Your task to perform on an android device: Is it going to rain tomorrow? Image 0: 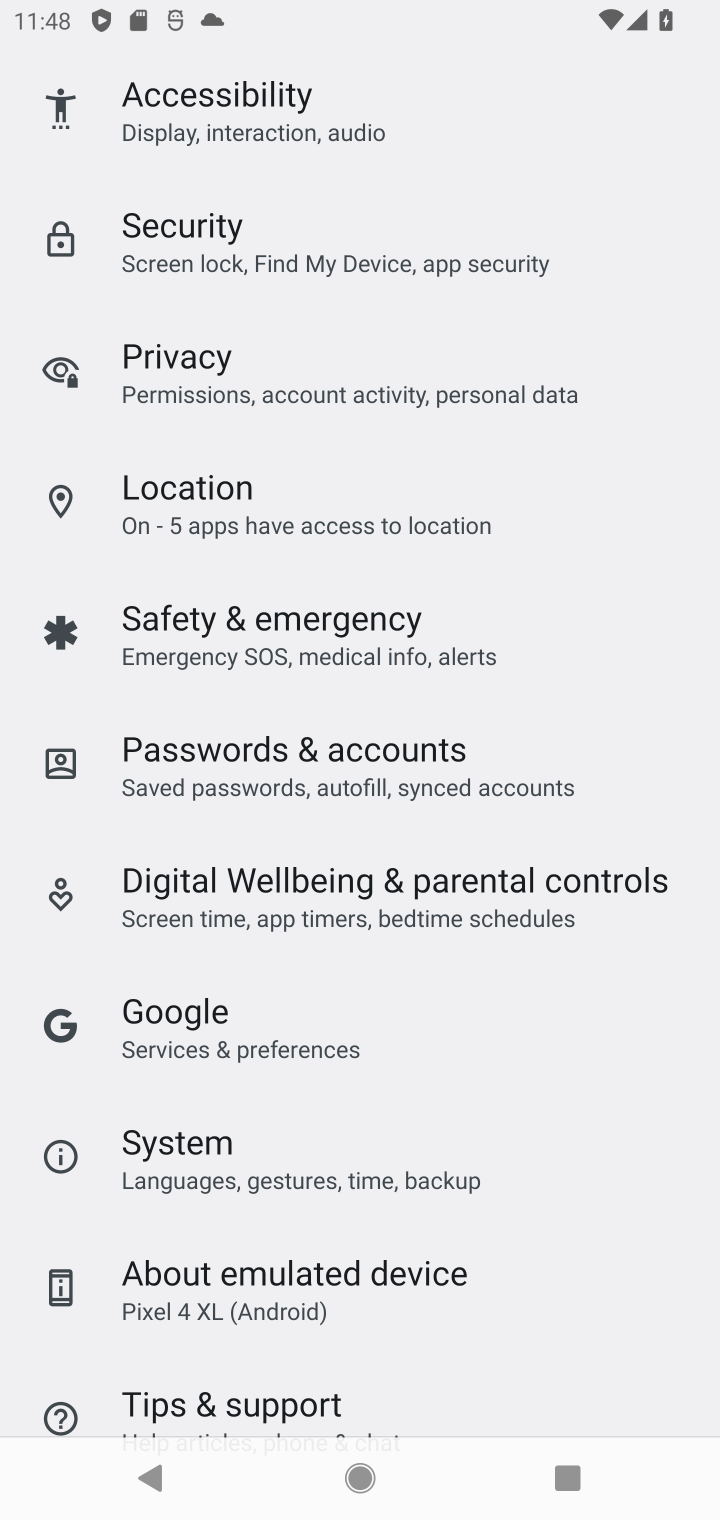
Step 0: press home button
Your task to perform on an android device: Is it going to rain tomorrow? Image 1: 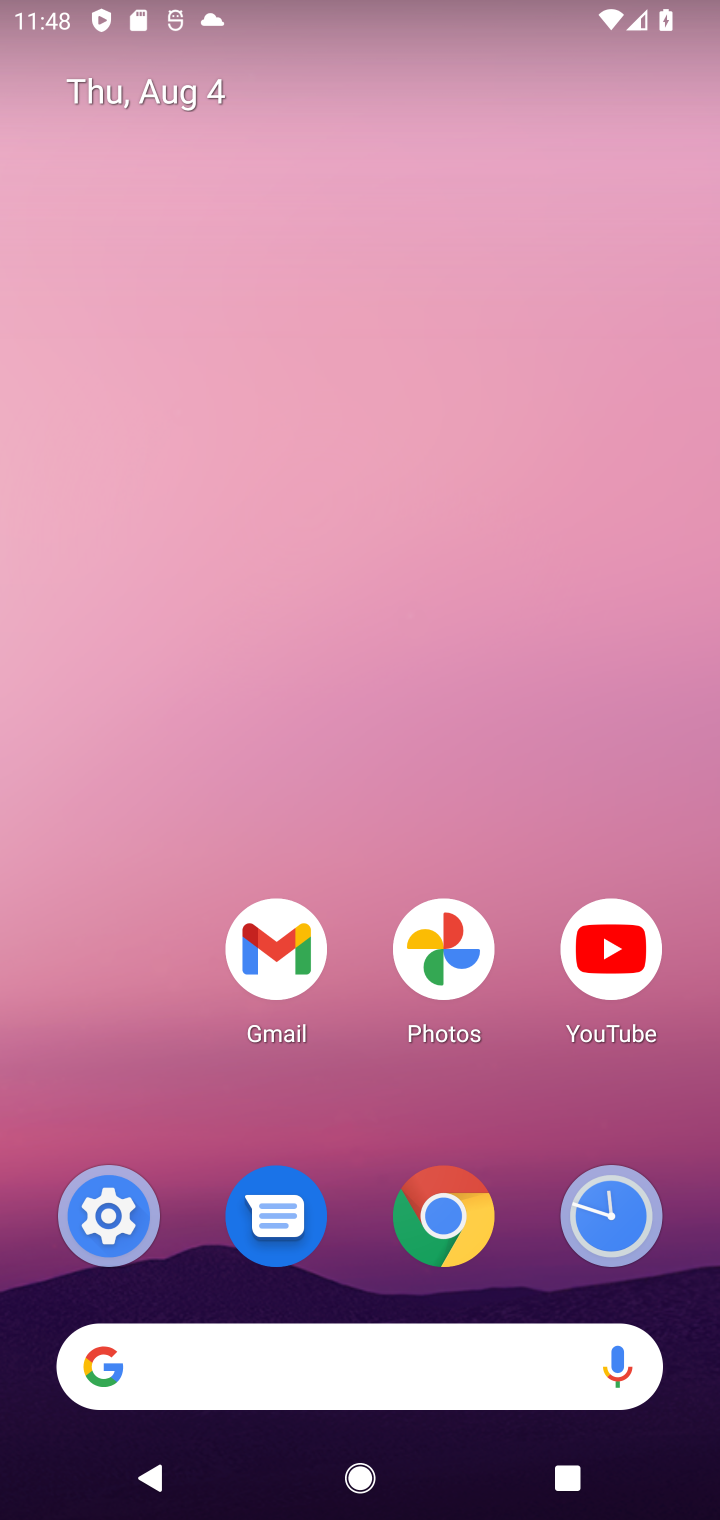
Step 1: drag from (336, 1357) to (510, 272)
Your task to perform on an android device: Is it going to rain tomorrow? Image 2: 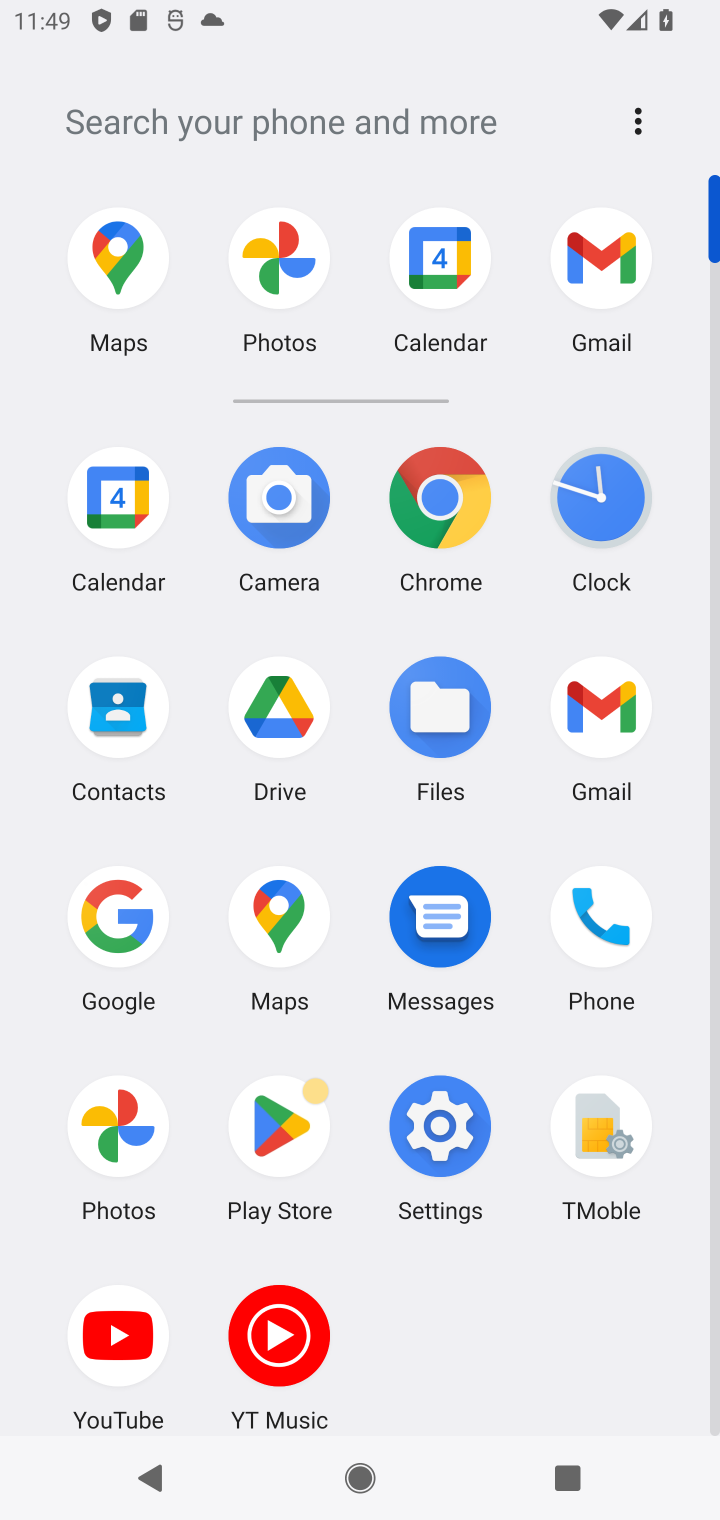
Step 2: click (110, 913)
Your task to perform on an android device: Is it going to rain tomorrow? Image 3: 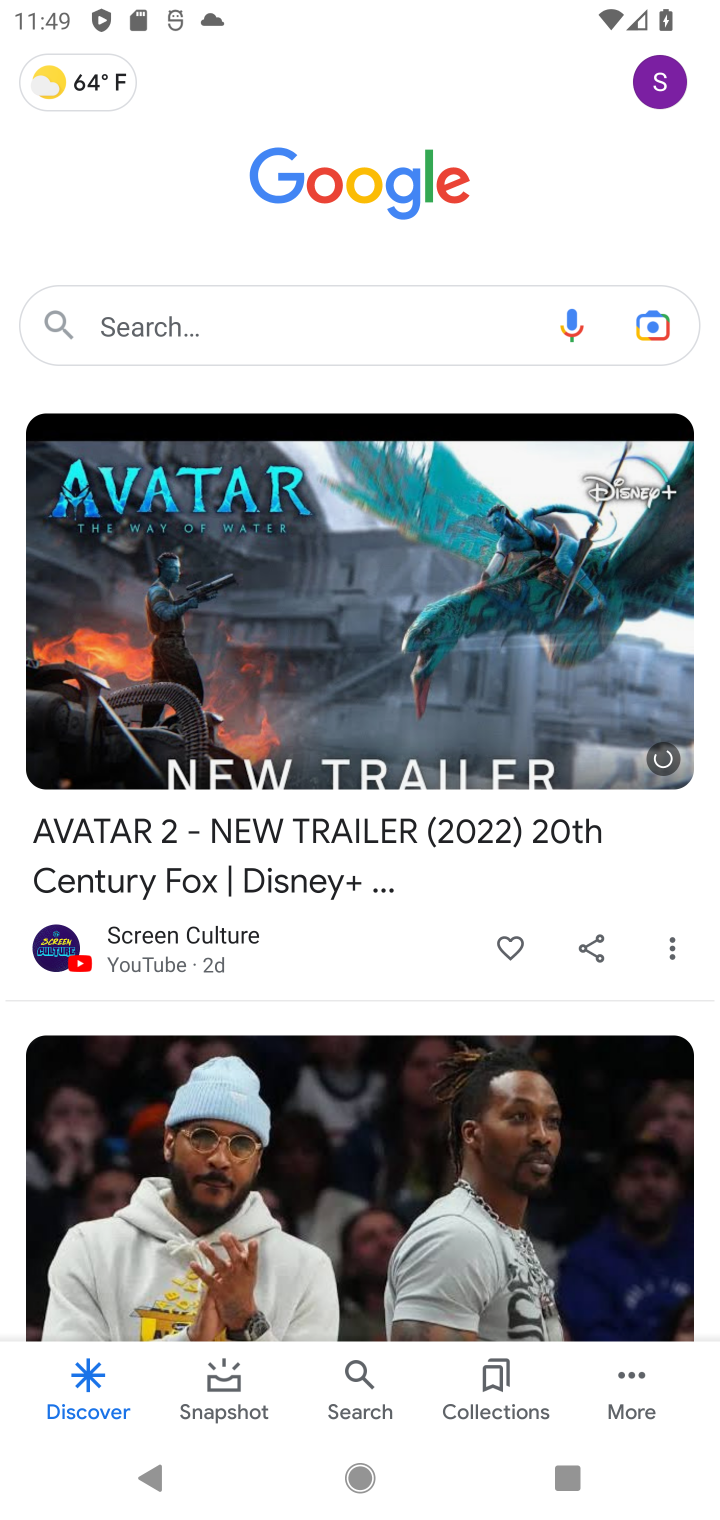
Step 3: click (308, 326)
Your task to perform on an android device: Is it going to rain tomorrow? Image 4: 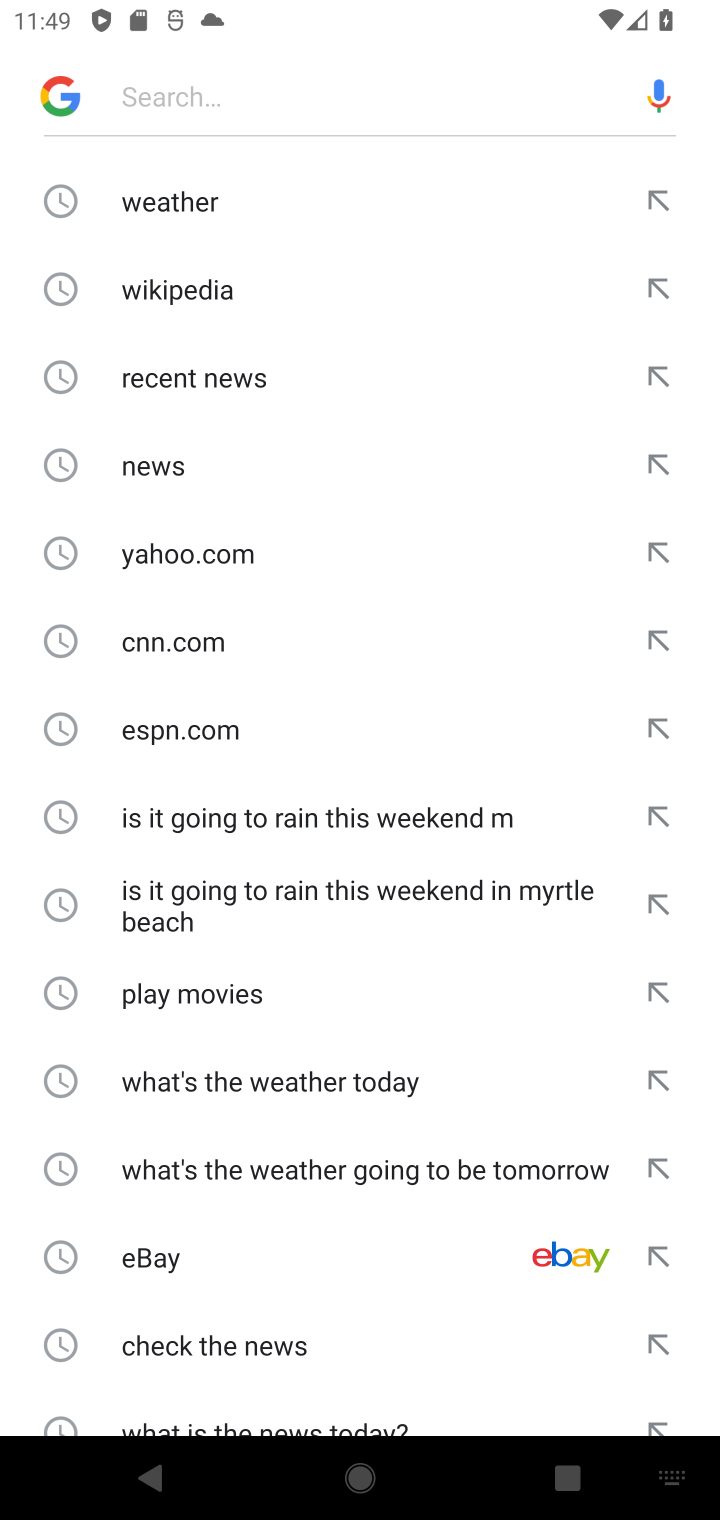
Step 4: type "Is it going to rain tomorrow"
Your task to perform on an android device: Is it going to rain tomorrow? Image 5: 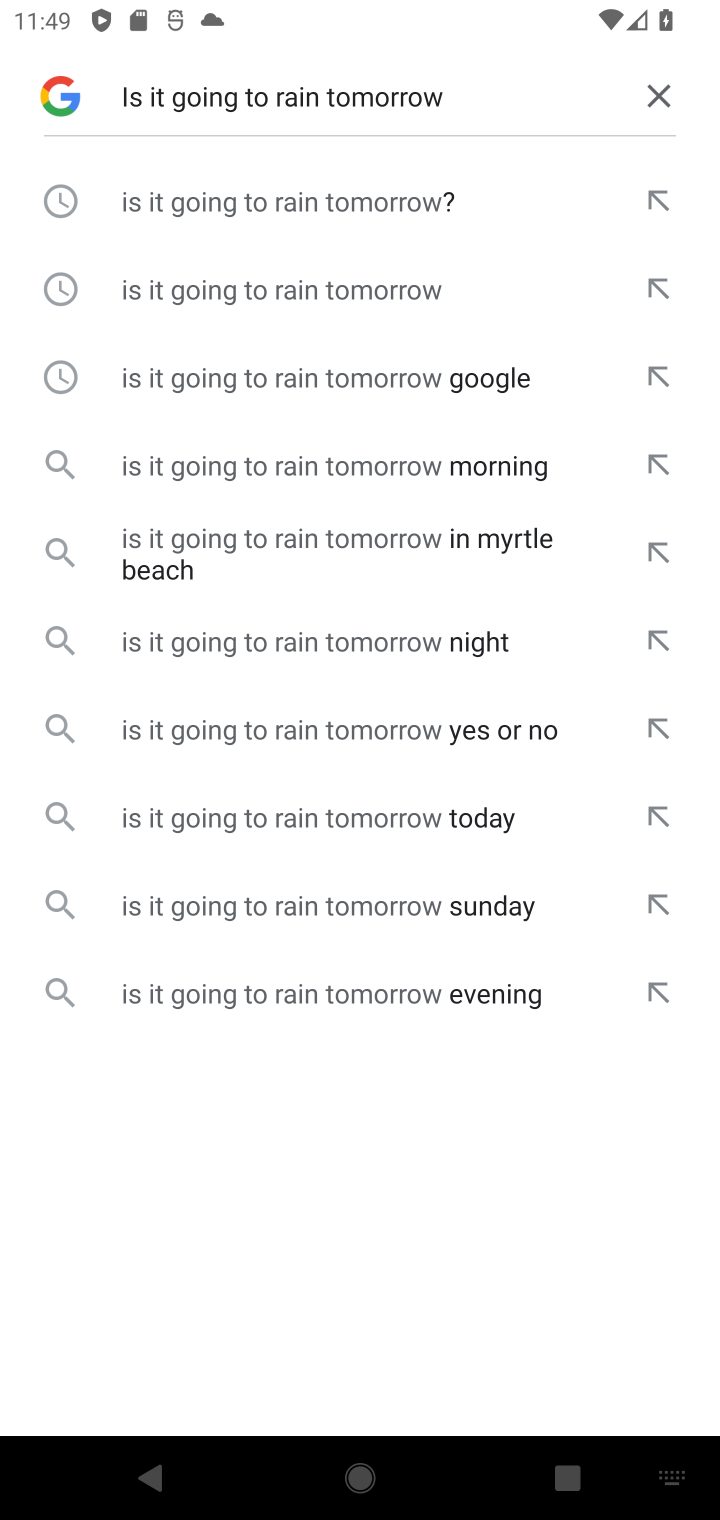
Step 5: click (327, 199)
Your task to perform on an android device: Is it going to rain tomorrow? Image 6: 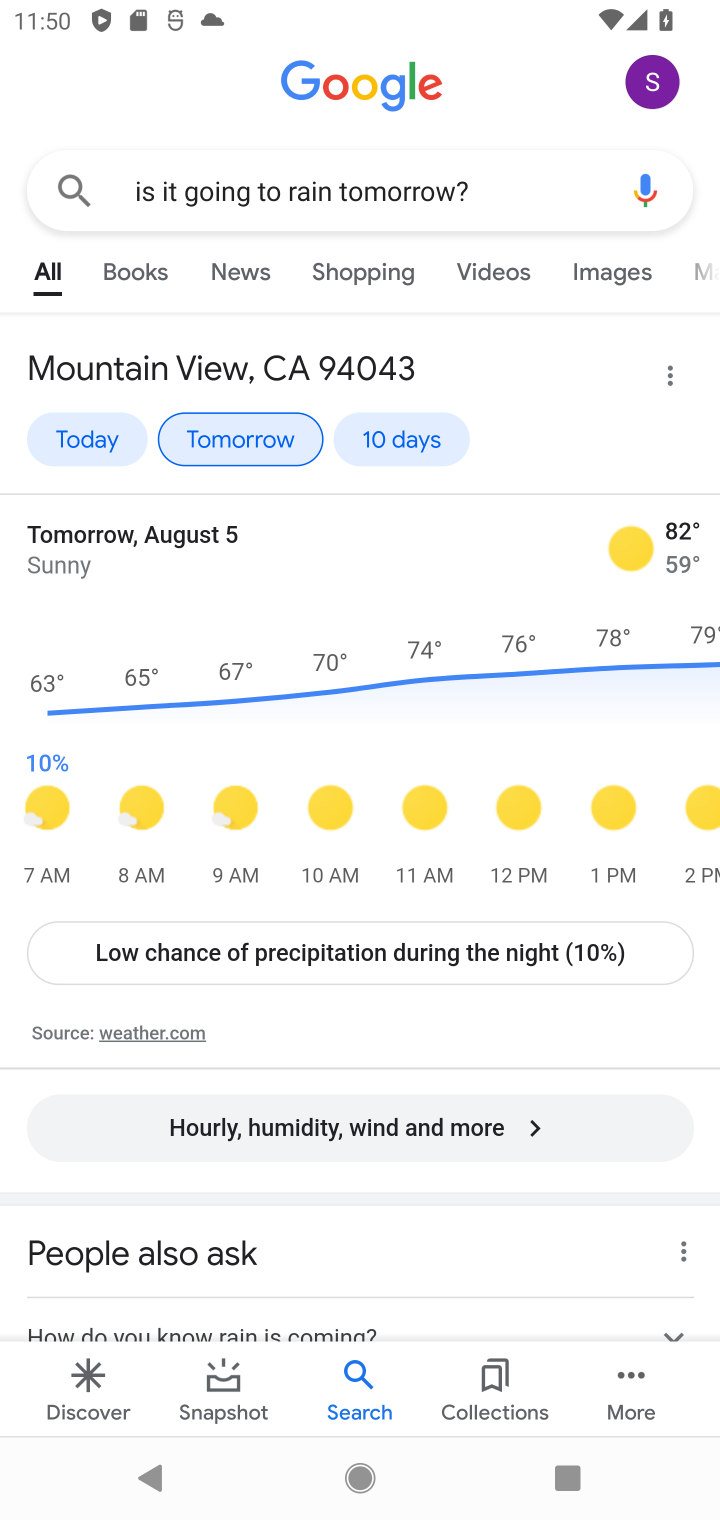
Step 6: task complete